Your task to perform on an android device: Go to calendar. Show me events next week Image 0: 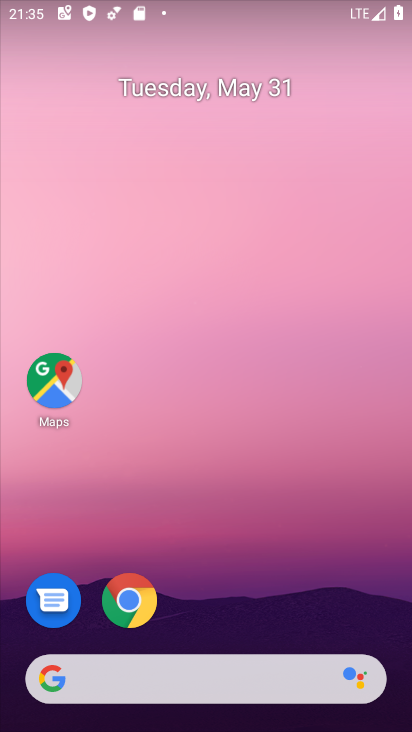
Step 0: drag from (255, 559) to (317, 135)
Your task to perform on an android device: Go to calendar. Show me events next week Image 1: 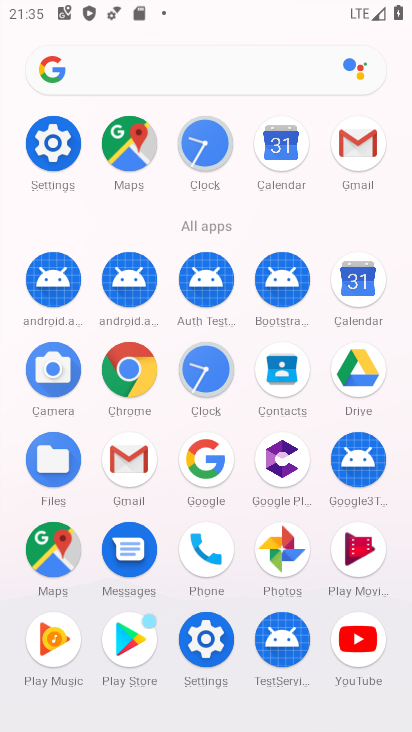
Step 1: click (268, 142)
Your task to perform on an android device: Go to calendar. Show me events next week Image 2: 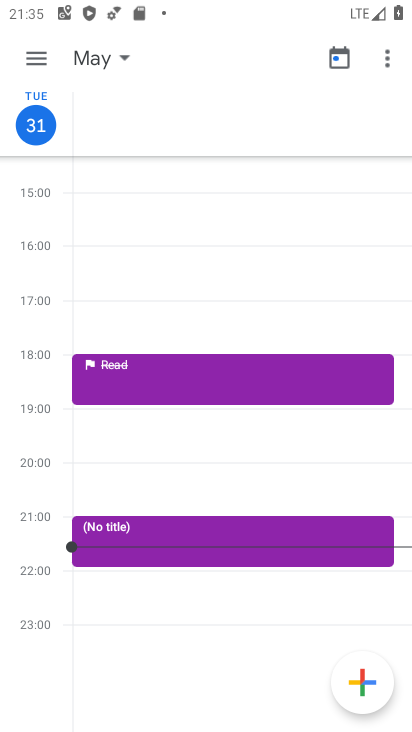
Step 2: click (101, 60)
Your task to perform on an android device: Go to calendar. Show me events next week Image 3: 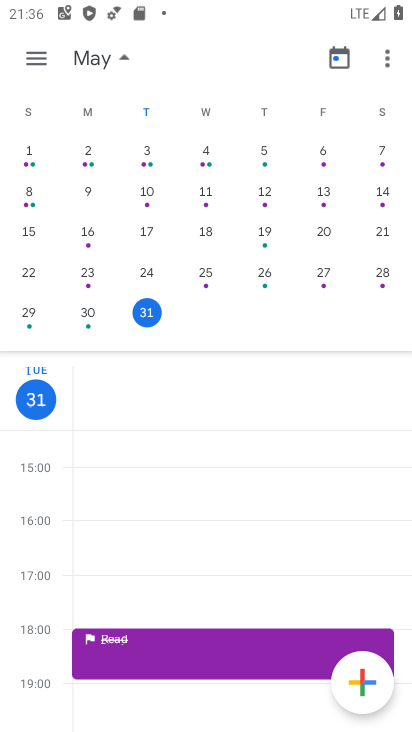
Step 3: drag from (379, 237) to (9, 243)
Your task to perform on an android device: Go to calendar. Show me events next week Image 4: 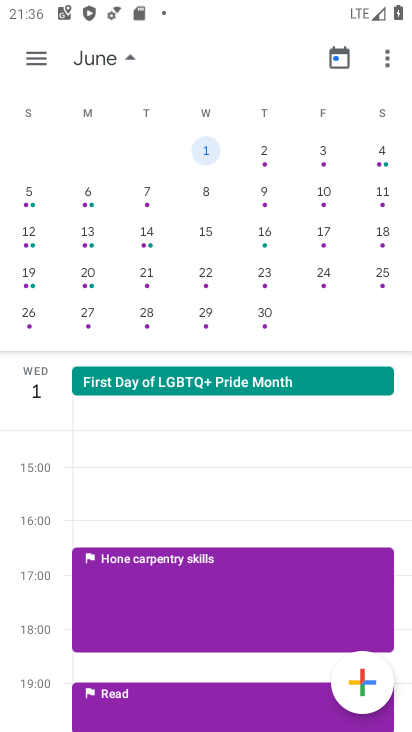
Step 4: click (81, 195)
Your task to perform on an android device: Go to calendar. Show me events next week Image 5: 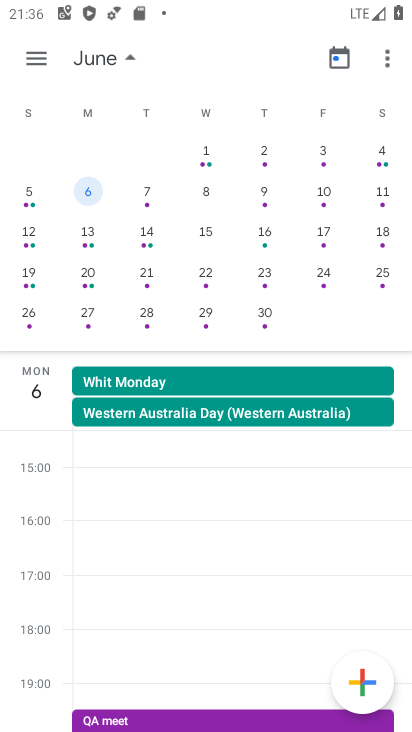
Step 5: click (124, 407)
Your task to perform on an android device: Go to calendar. Show me events next week Image 6: 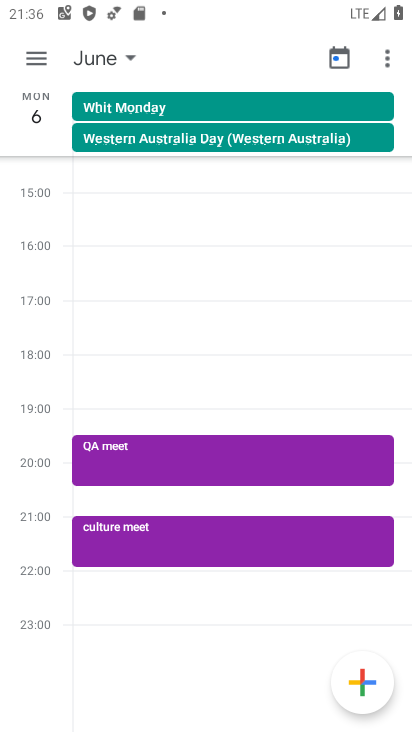
Step 6: click (37, 48)
Your task to perform on an android device: Go to calendar. Show me events next week Image 7: 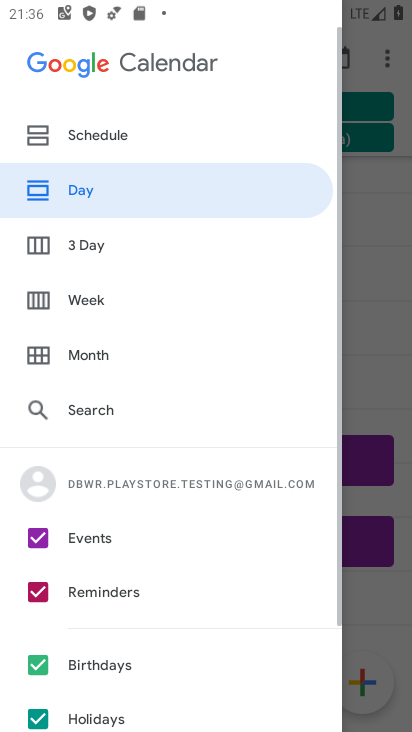
Step 7: click (104, 121)
Your task to perform on an android device: Go to calendar. Show me events next week Image 8: 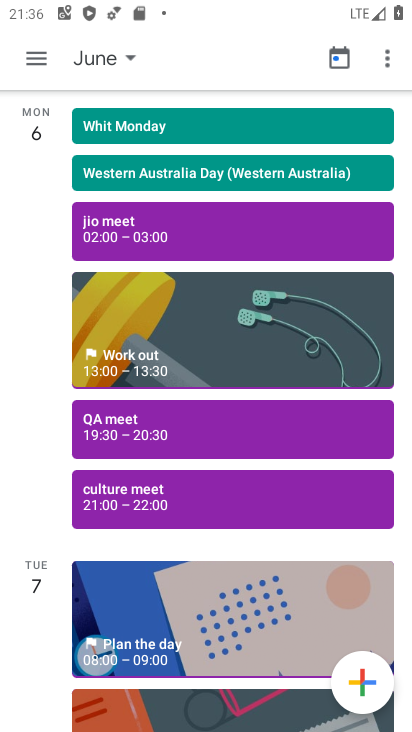
Step 8: click (129, 181)
Your task to perform on an android device: Go to calendar. Show me events next week Image 9: 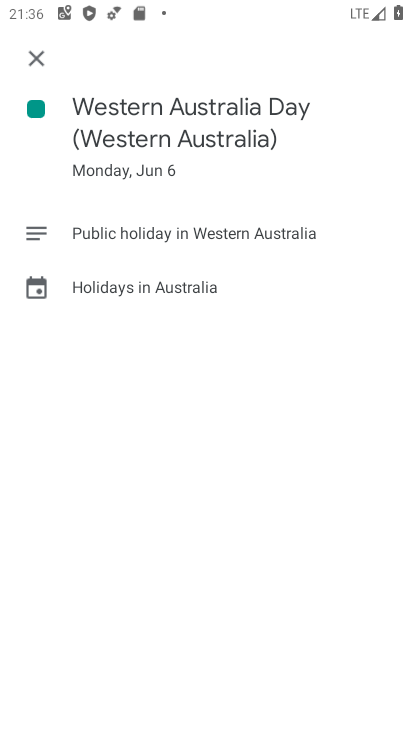
Step 9: task complete